Your task to perform on an android device: turn on priority inbox in the gmail app Image 0: 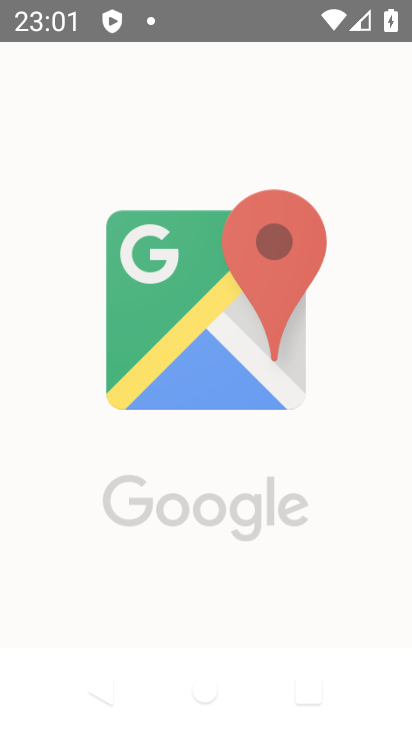
Step 0: drag from (228, 525) to (196, 122)
Your task to perform on an android device: turn on priority inbox in the gmail app Image 1: 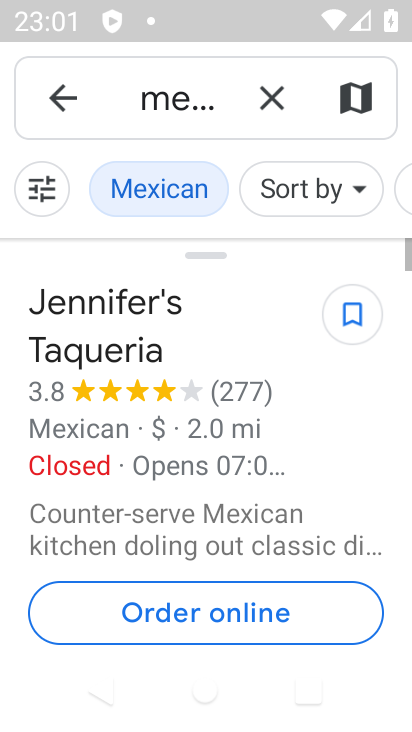
Step 1: press home button
Your task to perform on an android device: turn on priority inbox in the gmail app Image 2: 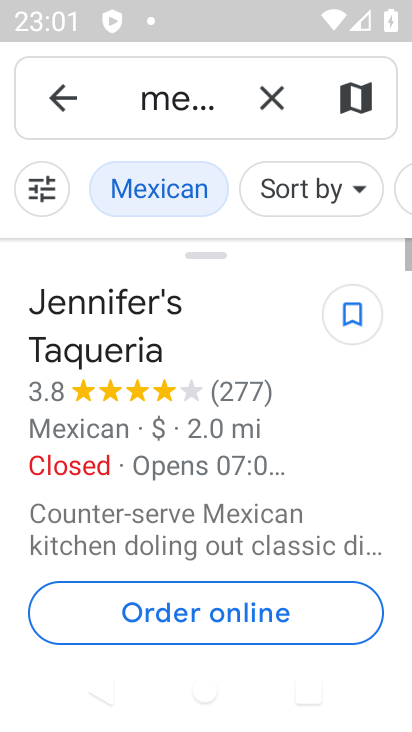
Step 2: drag from (172, 570) to (232, 155)
Your task to perform on an android device: turn on priority inbox in the gmail app Image 3: 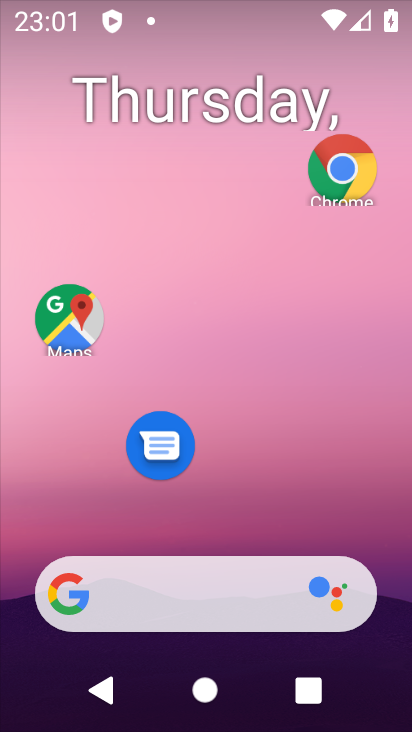
Step 3: drag from (216, 524) to (245, 185)
Your task to perform on an android device: turn on priority inbox in the gmail app Image 4: 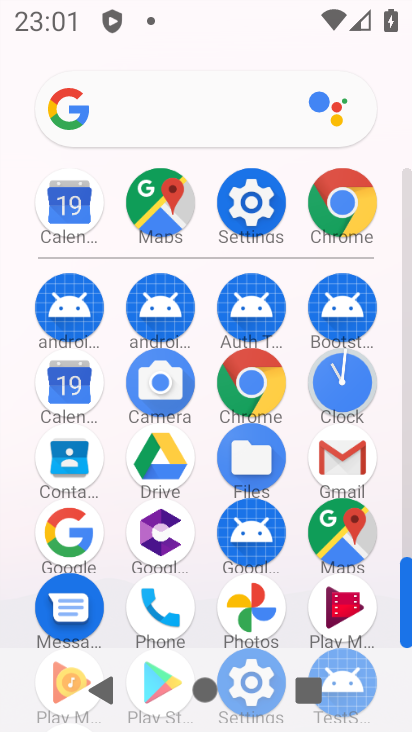
Step 4: click (347, 446)
Your task to perform on an android device: turn on priority inbox in the gmail app Image 5: 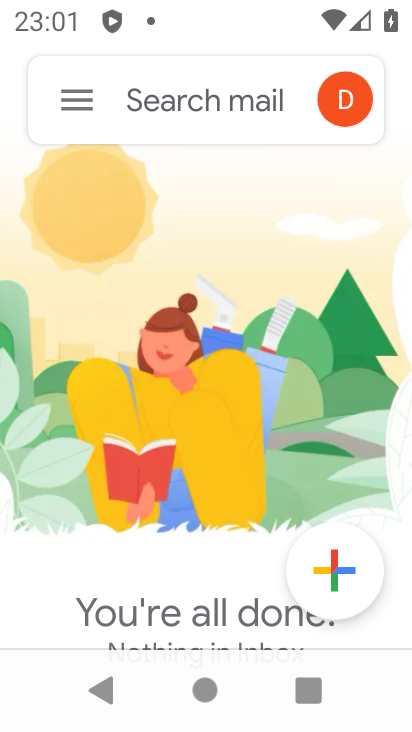
Step 5: drag from (155, 576) to (177, 235)
Your task to perform on an android device: turn on priority inbox in the gmail app Image 6: 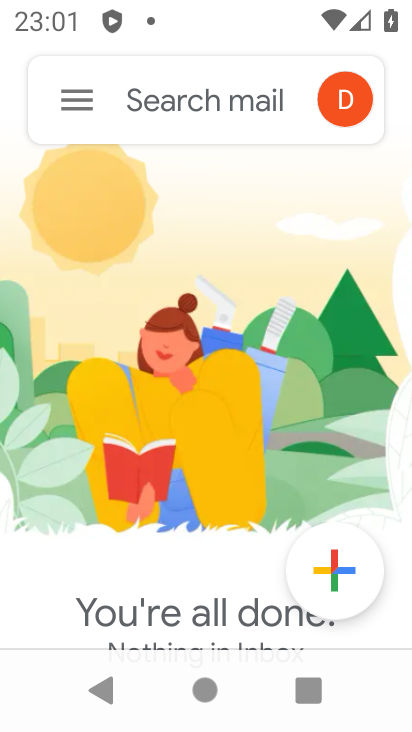
Step 6: click (50, 107)
Your task to perform on an android device: turn on priority inbox in the gmail app Image 7: 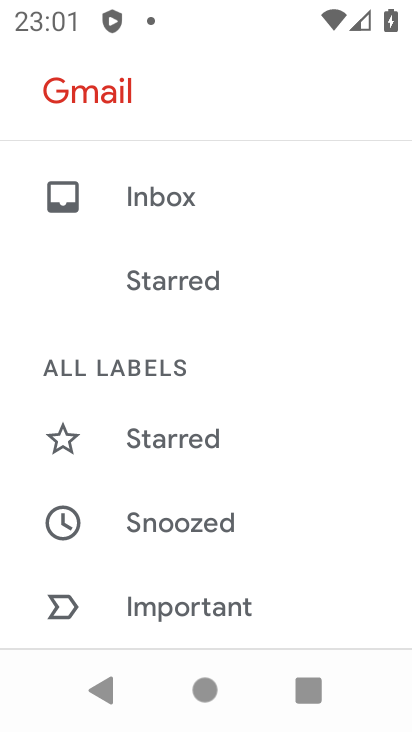
Step 7: drag from (194, 546) to (252, 22)
Your task to perform on an android device: turn on priority inbox in the gmail app Image 8: 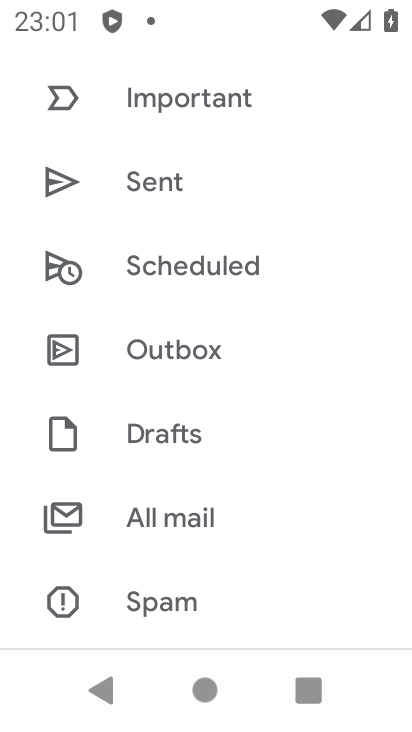
Step 8: drag from (158, 570) to (273, 121)
Your task to perform on an android device: turn on priority inbox in the gmail app Image 9: 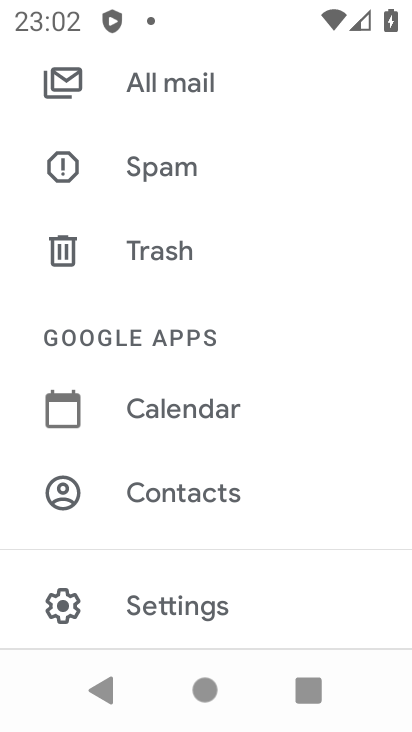
Step 9: drag from (178, 578) to (213, 263)
Your task to perform on an android device: turn on priority inbox in the gmail app Image 10: 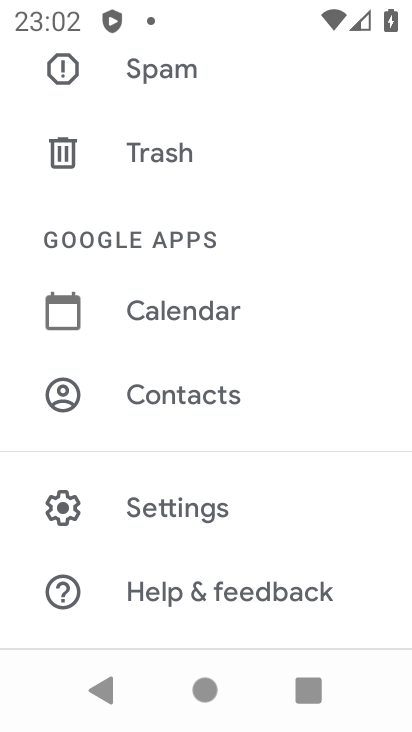
Step 10: click (170, 495)
Your task to perform on an android device: turn on priority inbox in the gmail app Image 11: 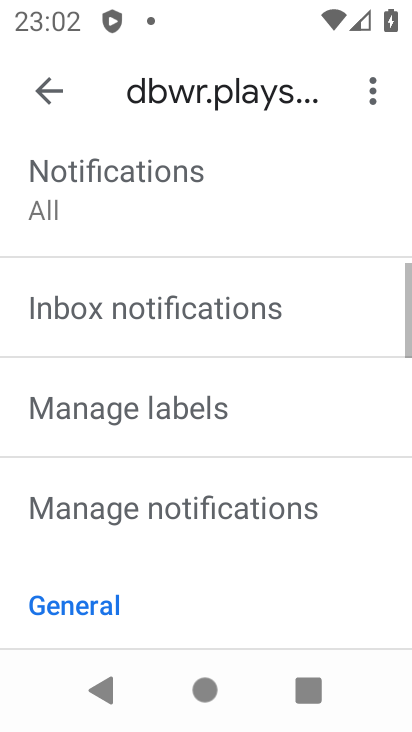
Step 11: drag from (203, 487) to (278, 726)
Your task to perform on an android device: turn on priority inbox in the gmail app Image 12: 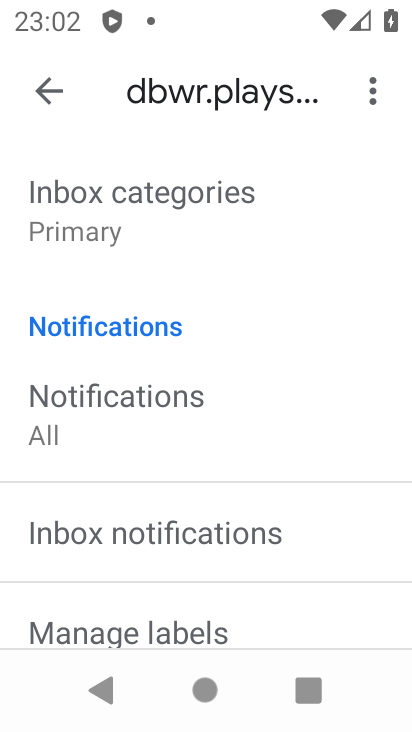
Step 12: drag from (174, 424) to (282, 730)
Your task to perform on an android device: turn on priority inbox in the gmail app Image 13: 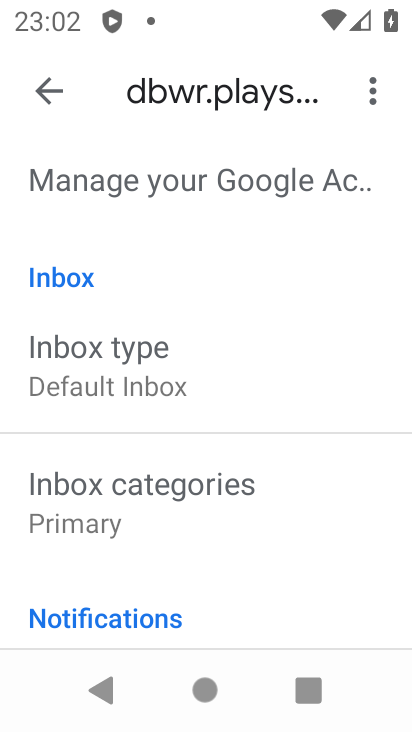
Step 13: click (178, 385)
Your task to perform on an android device: turn on priority inbox in the gmail app Image 14: 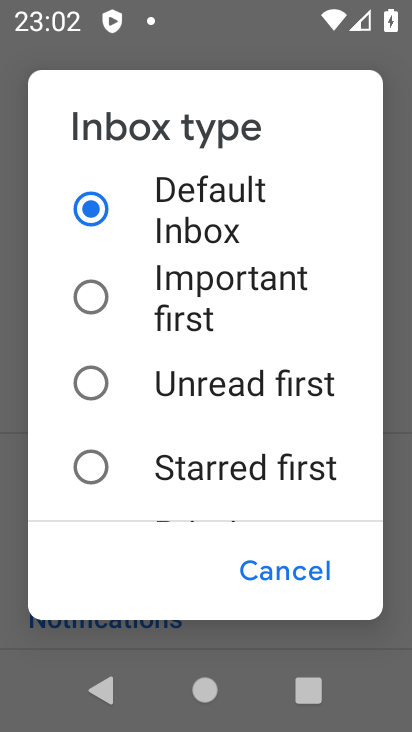
Step 14: drag from (199, 416) to (316, 69)
Your task to perform on an android device: turn on priority inbox in the gmail app Image 15: 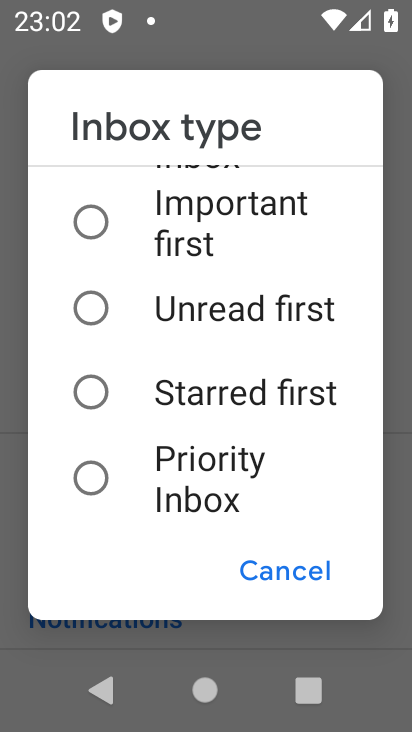
Step 15: click (153, 489)
Your task to perform on an android device: turn on priority inbox in the gmail app Image 16: 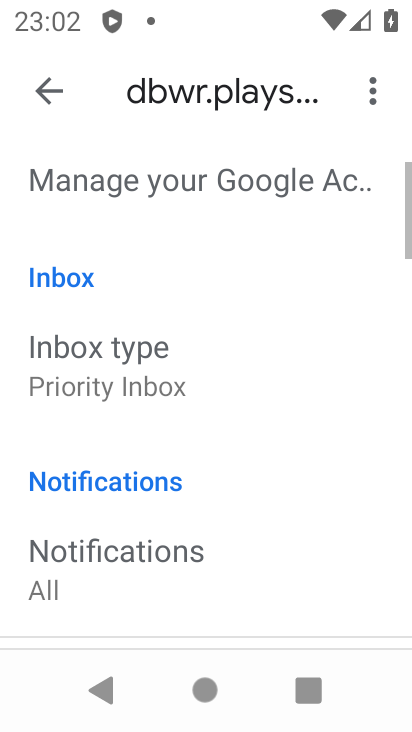
Step 16: task complete